Your task to perform on an android device: toggle javascript in the chrome app Image 0: 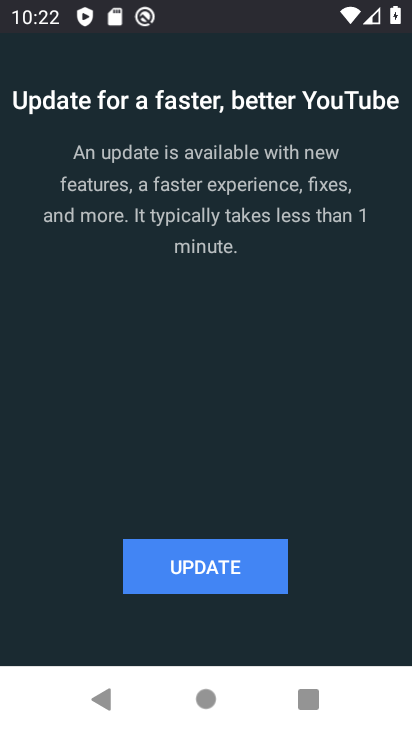
Step 0: press back button
Your task to perform on an android device: toggle javascript in the chrome app Image 1: 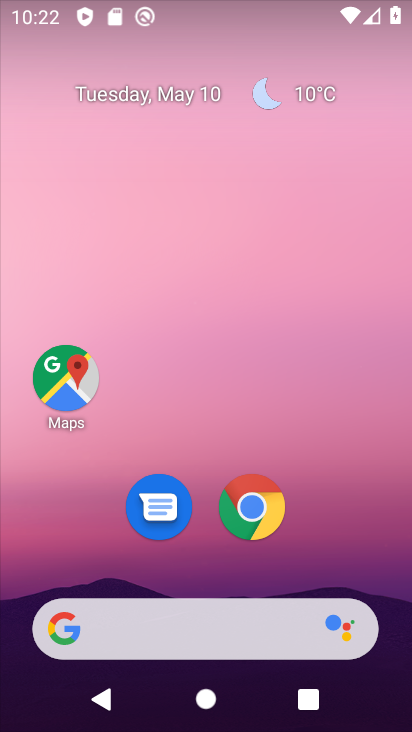
Step 1: click (279, 513)
Your task to perform on an android device: toggle javascript in the chrome app Image 2: 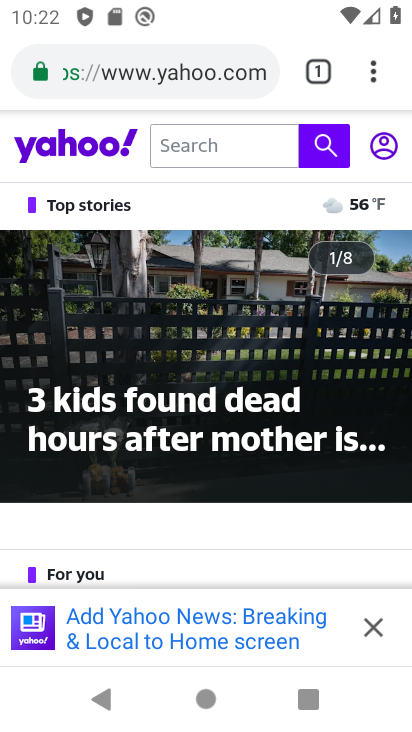
Step 2: click (372, 75)
Your task to perform on an android device: toggle javascript in the chrome app Image 3: 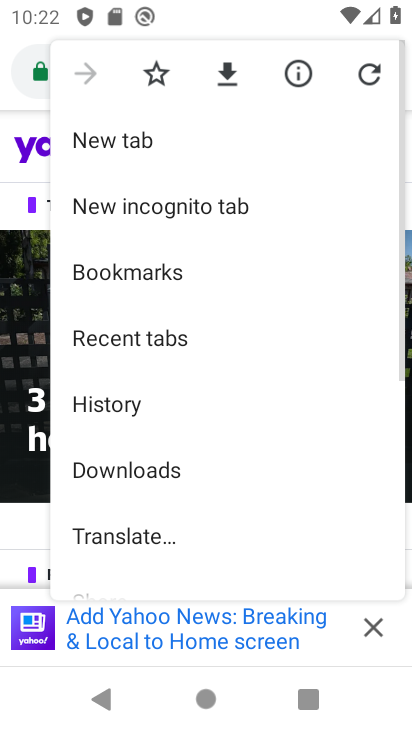
Step 3: drag from (142, 553) to (142, 116)
Your task to perform on an android device: toggle javascript in the chrome app Image 4: 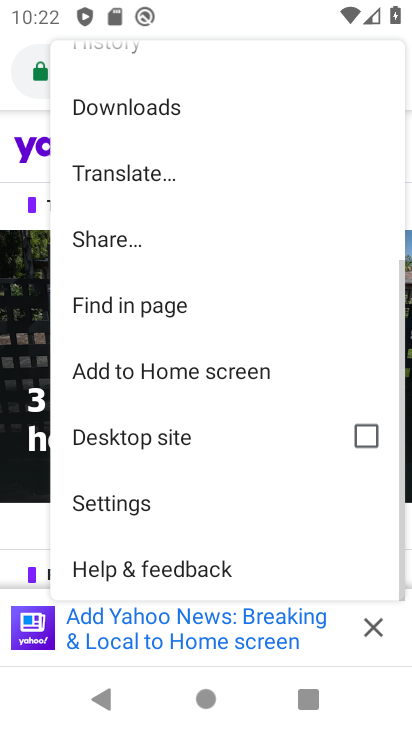
Step 4: click (124, 503)
Your task to perform on an android device: toggle javascript in the chrome app Image 5: 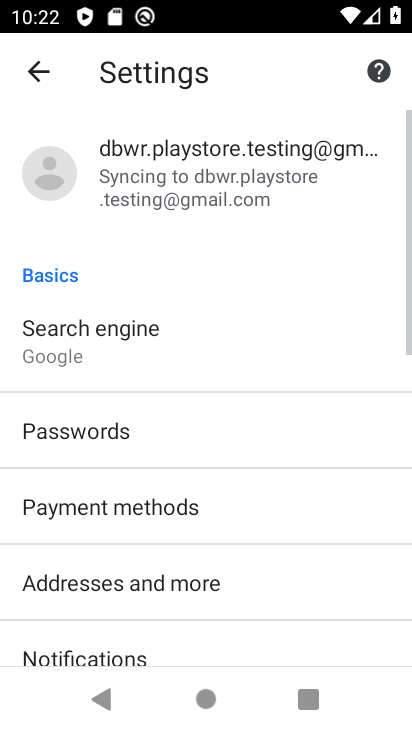
Step 5: drag from (210, 644) to (210, 293)
Your task to perform on an android device: toggle javascript in the chrome app Image 6: 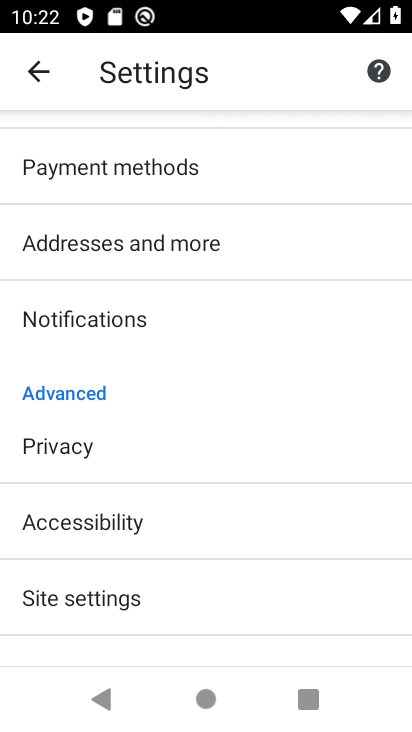
Step 6: click (126, 599)
Your task to perform on an android device: toggle javascript in the chrome app Image 7: 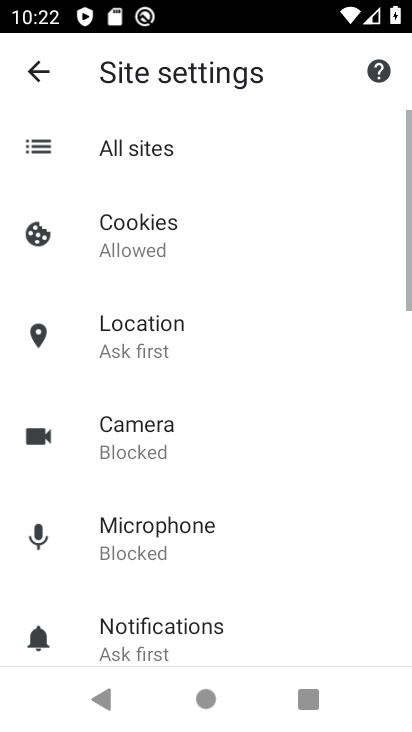
Step 7: drag from (188, 614) to (183, 314)
Your task to perform on an android device: toggle javascript in the chrome app Image 8: 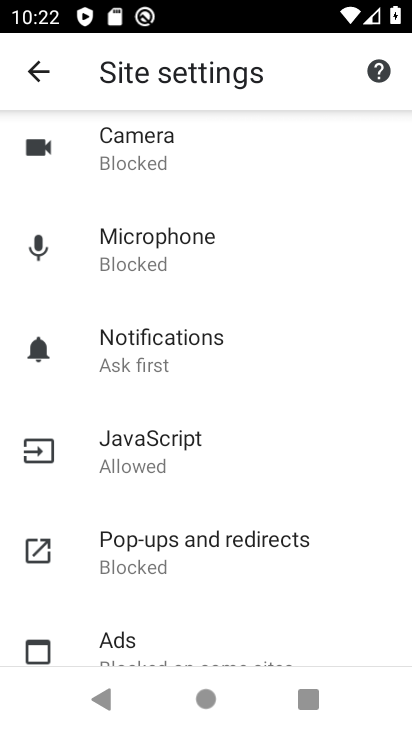
Step 8: click (153, 444)
Your task to perform on an android device: toggle javascript in the chrome app Image 9: 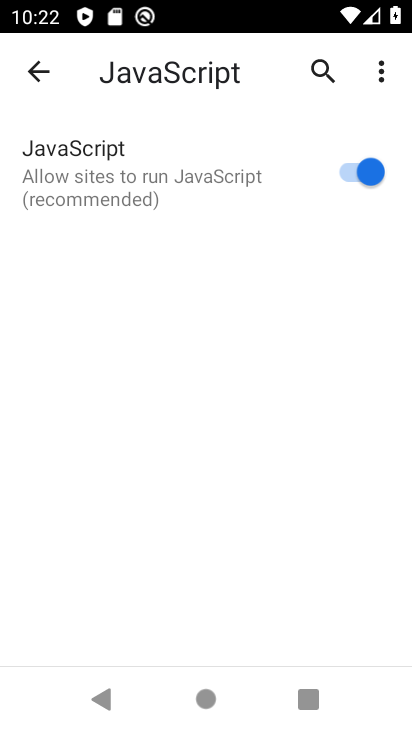
Step 9: click (349, 170)
Your task to perform on an android device: toggle javascript in the chrome app Image 10: 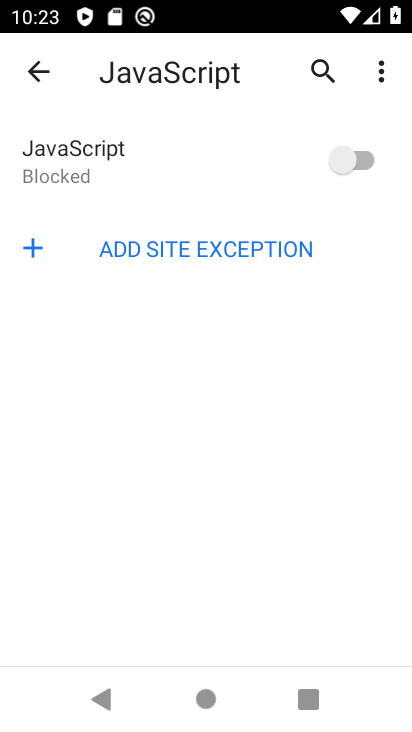
Step 10: task complete